Your task to perform on an android device: turn off wifi Image 0: 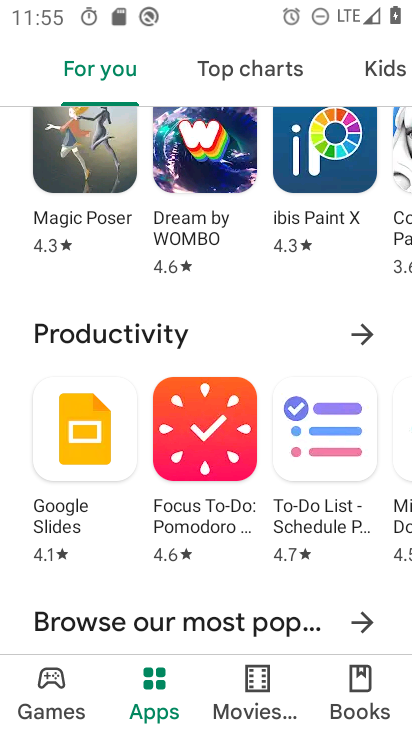
Step 0: press home button
Your task to perform on an android device: turn off wifi Image 1: 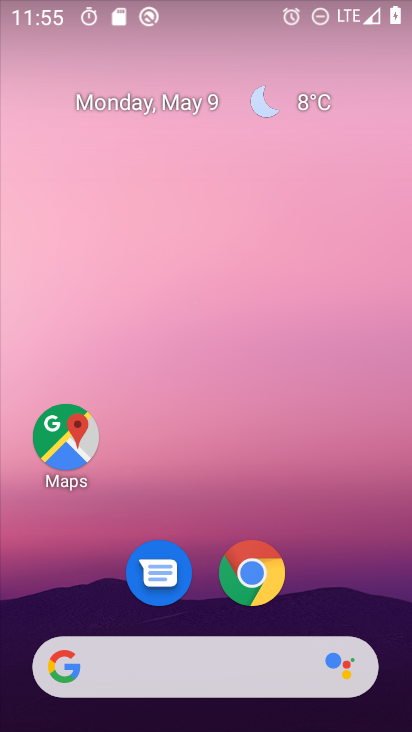
Step 1: drag from (354, 541) to (233, 159)
Your task to perform on an android device: turn off wifi Image 2: 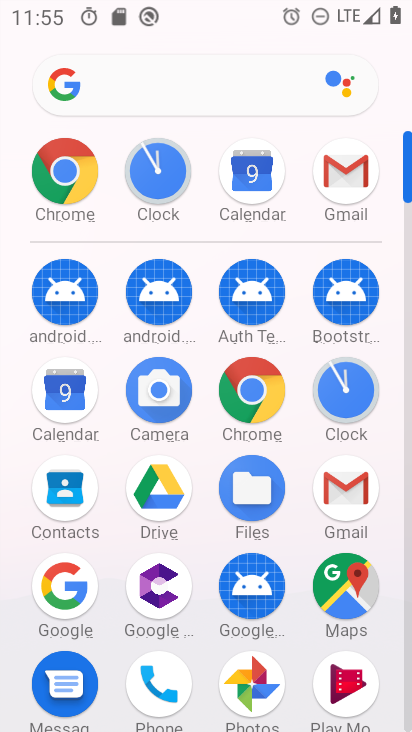
Step 2: drag from (211, 608) to (245, 242)
Your task to perform on an android device: turn off wifi Image 3: 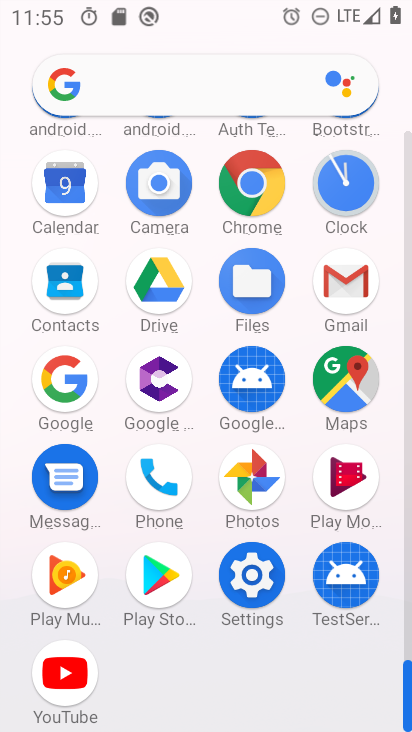
Step 3: click (244, 594)
Your task to perform on an android device: turn off wifi Image 4: 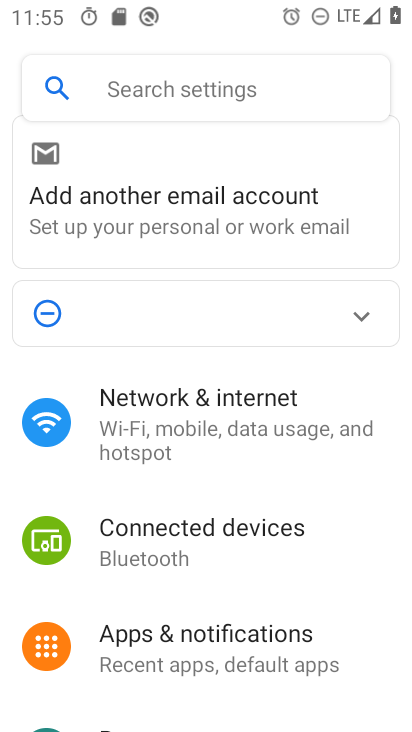
Step 4: click (221, 426)
Your task to perform on an android device: turn off wifi Image 5: 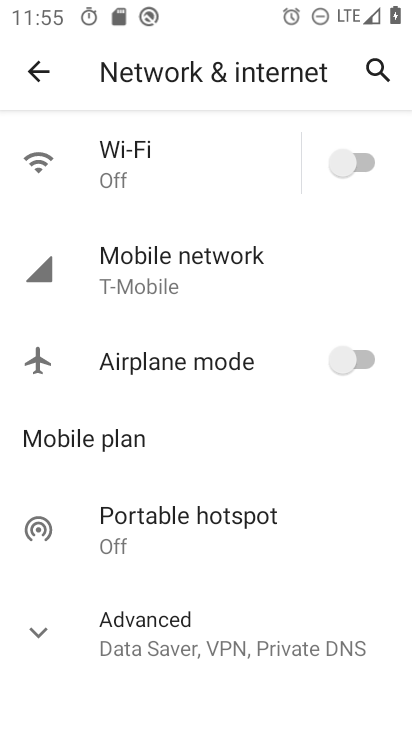
Step 5: click (248, 172)
Your task to perform on an android device: turn off wifi Image 6: 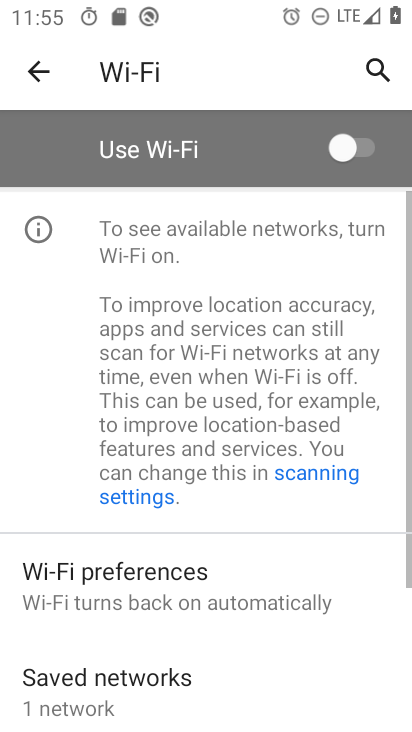
Step 6: task complete